Your task to perform on an android device: open chrome and create a bookmark for the current page Image 0: 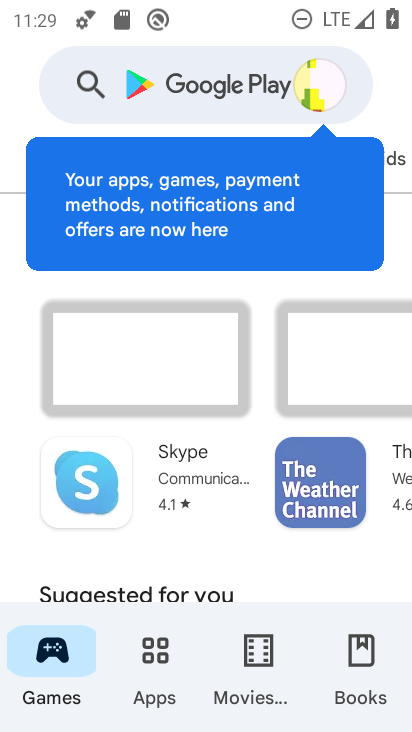
Step 0: press home button
Your task to perform on an android device: open chrome and create a bookmark for the current page Image 1: 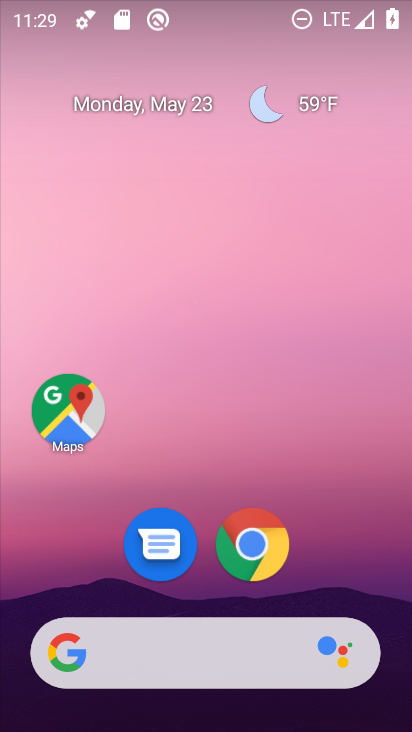
Step 1: click (251, 542)
Your task to perform on an android device: open chrome and create a bookmark for the current page Image 2: 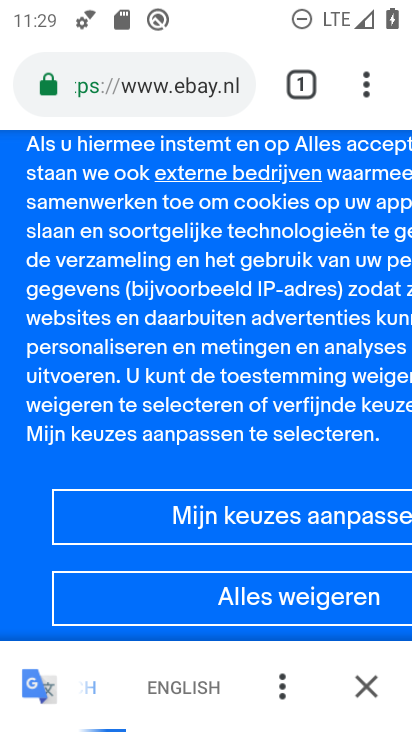
Step 2: click (364, 86)
Your task to perform on an android device: open chrome and create a bookmark for the current page Image 3: 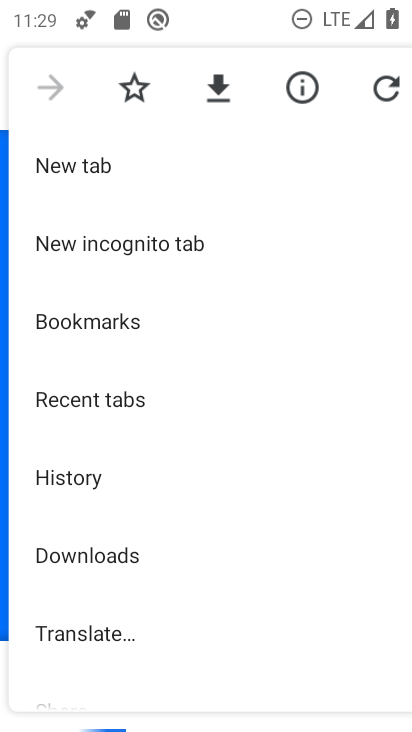
Step 3: click (129, 86)
Your task to perform on an android device: open chrome and create a bookmark for the current page Image 4: 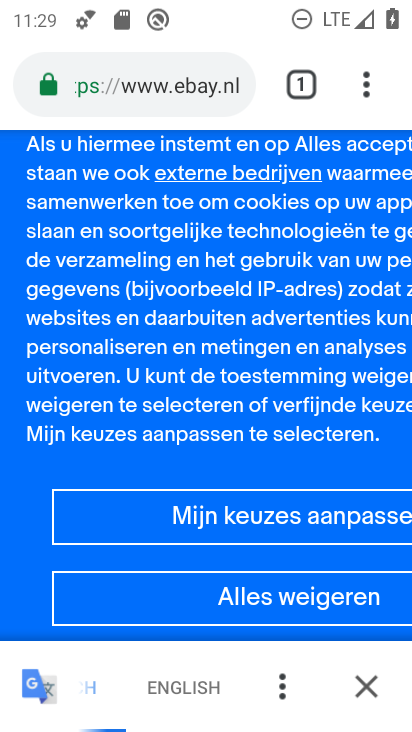
Step 4: task complete